Your task to perform on an android device: move a message to another label in the gmail app Image 0: 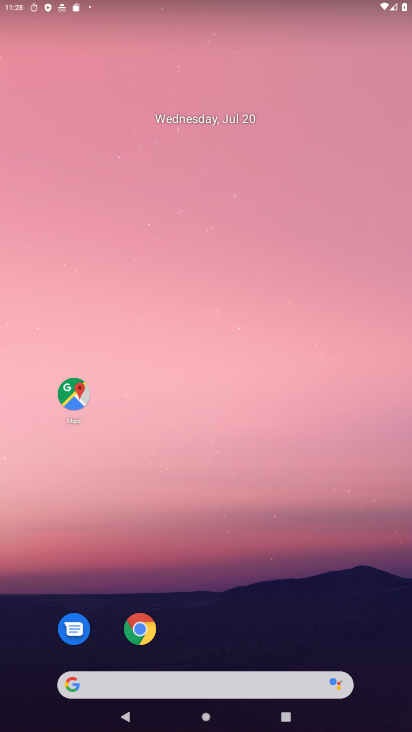
Step 0: drag from (342, 688) to (304, 33)
Your task to perform on an android device: move a message to another label in the gmail app Image 1: 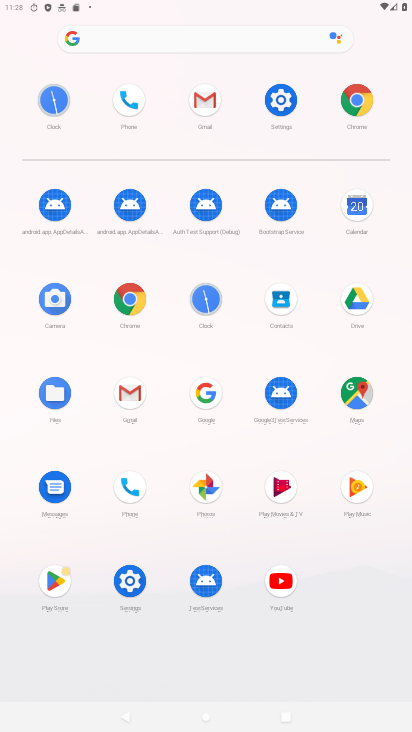
Step 1: click (125, 391)
Your task to perform on an android device: move a message to another label in the gmail app Image 2: 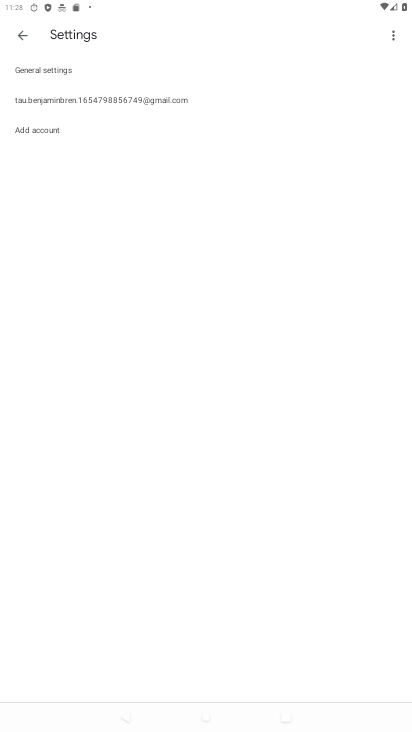
Step 2: press back button
Your task to perform on an android device: move a message to another label in the gmail app Image 3: 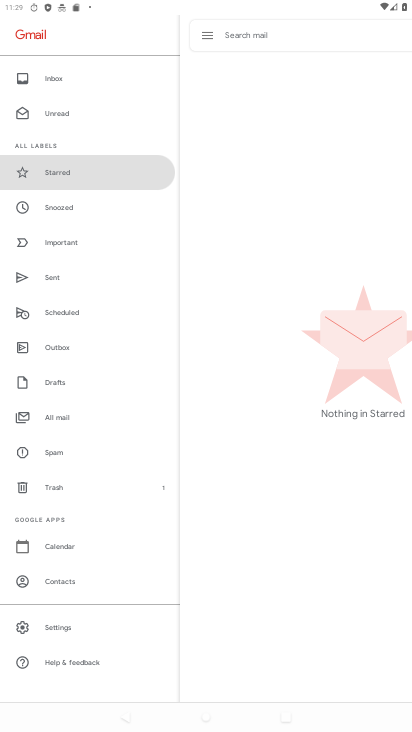
Step 3: click (55, 79)
Your task to perform on an android device: move a message to another label in the gmail app Image 4: 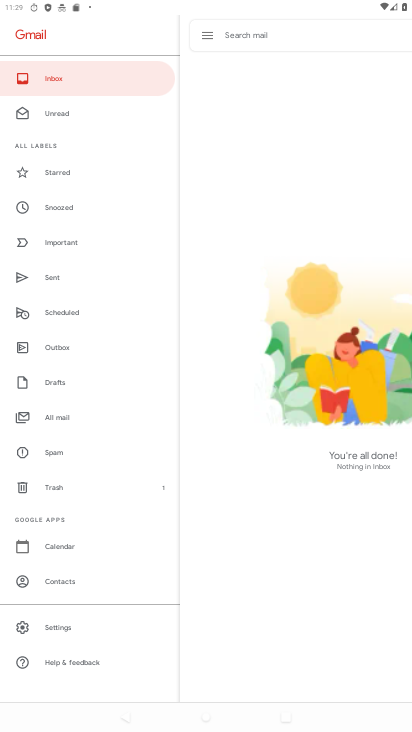
Step 4: task complete